Your task to perform on an android device: Go to CNN.com Image 0: 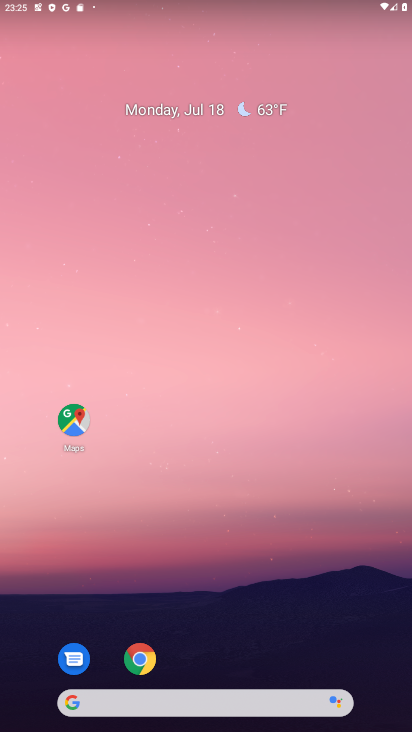
Step 0: press home button
Your task to perform on an android device: Go to CNN.com Image 1: 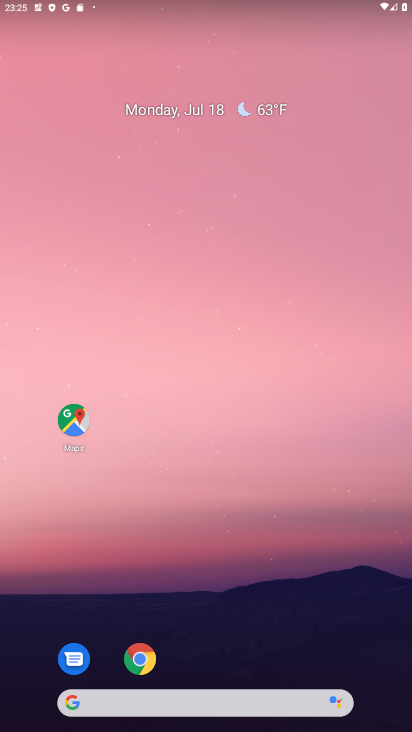
Step 1: click (150, 663)
Your task to perform on an android device: Go to CNN.com Image 2: 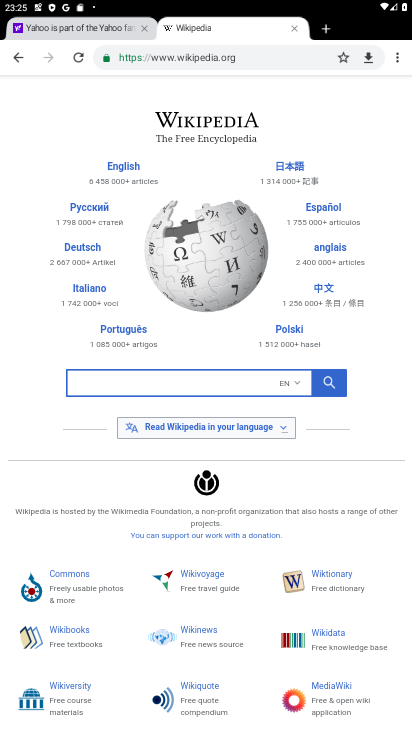
Step 2: click (225, 53)
Your task to perform on an android device: Go to CNN.com Image 3: 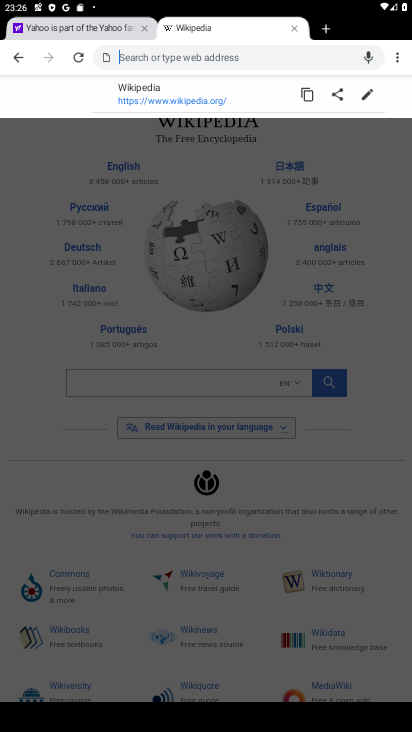
Step 3: type "CNN.com"
Your task to perform on an android device: Go to CNN.com Image 4: 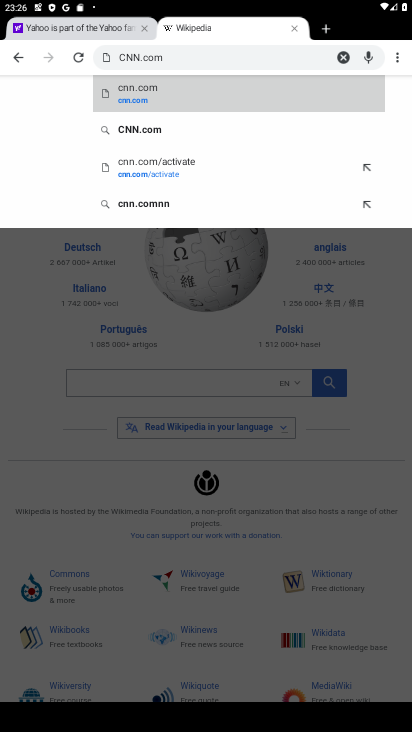
Step 4: click (182, 103)
Your task to perform on an android device: Go to CNN.com Image 5: 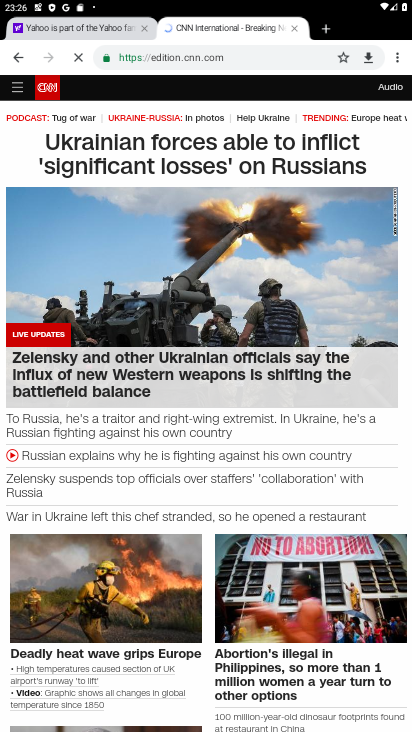
Step 5: task complete